Your task to perform on an android device: What's the news this evening? Image 0: 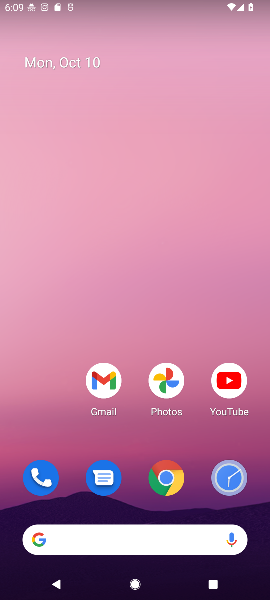
Step 0: click (132, 546)
Your task to perform on an android device: What's the news this evening? Image 1: 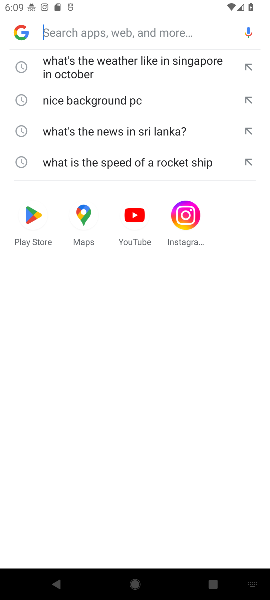
Step 1: click (17, 29)
Your task to perform on an android device: What's the news this evening? Image 2: 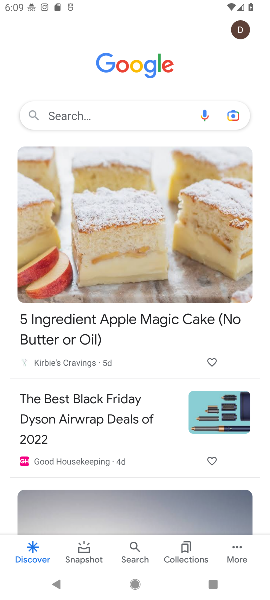
Step 2: click (98, 102)
Your task to perform on an android device: What's the news this evening? Image 3: 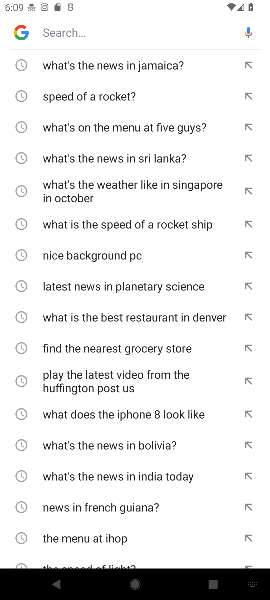
Step 3: type "What's the news this evening?"
Your task to perform on an android device: What's the news this evening? Image 4: 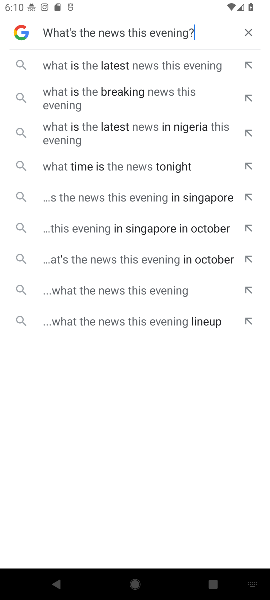
Step 4: click (74, 67)
Your task to perform on an android device: What's the news this evening? Image 5: 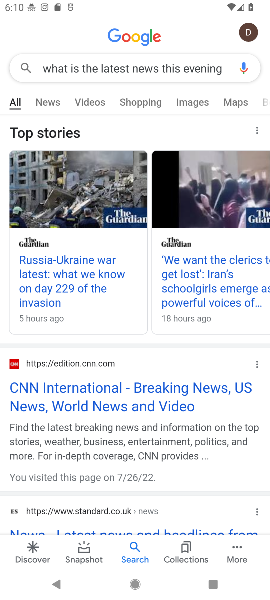
Step 5: click (55, 111)
Your task to perform on an android device: What's the news this evening? Image 6: 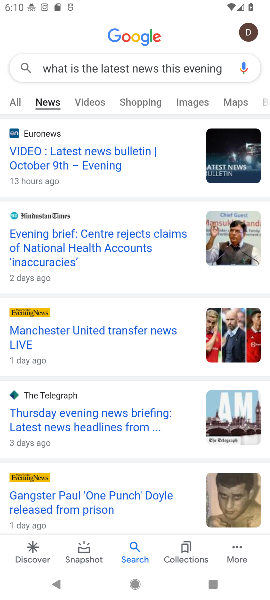
Step 6: click (78, 253)
Your task to perform on an android device: What's the news this evening? Image 7: 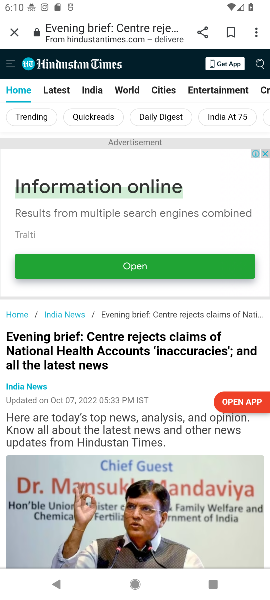
Step 7: task complete